Your task to perform on an android device: Open the calendar and show me this week's events? Image 0: 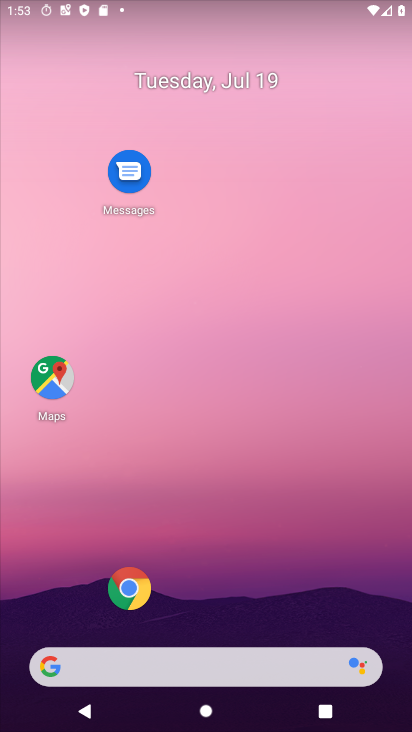
Step 0: drag from (36, 678) to (143, 131)
Your task to perform on an android device: Open the calendar and show me this week's events? Image 1: 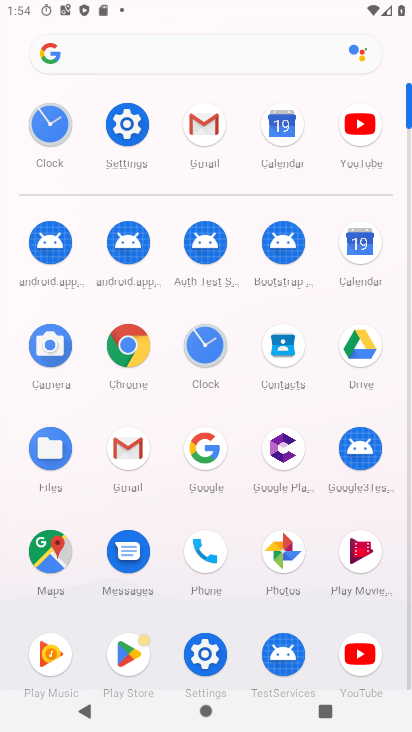
Step 1: click (368, 257)
Your task to perform on an android device: Open the calendar and show me this week's events? Image 2: 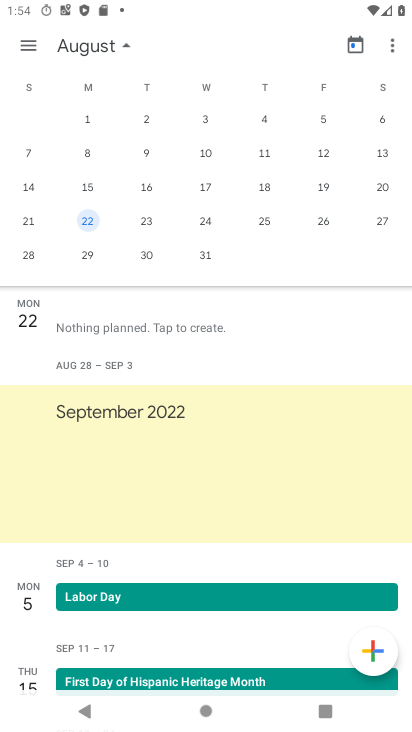
Step 2: task complete